Your task to perform on an android device: check storage Image 0: 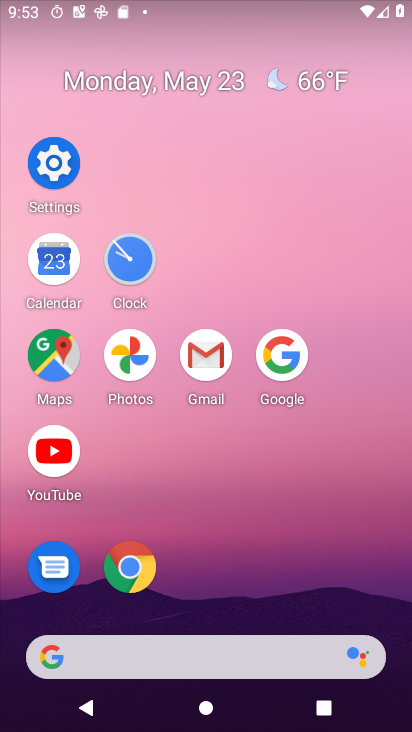
Step 0: click (59, 164)
Your task to perform on an android device: check storage Image 1: 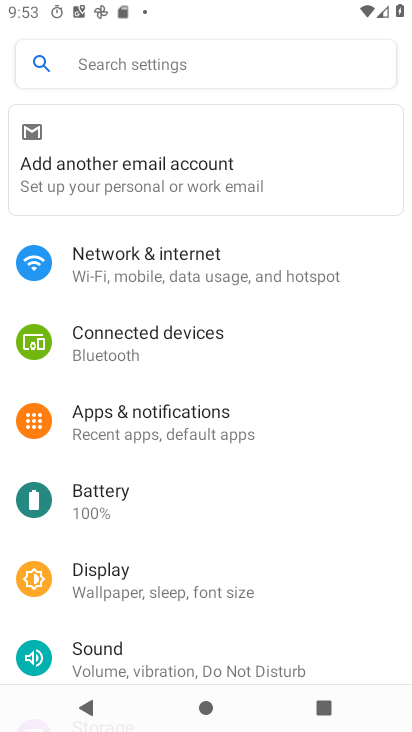
Step 1: drag from (172, 612) to (235, 313)
Your task to perform on an android device: check storage Image 2: 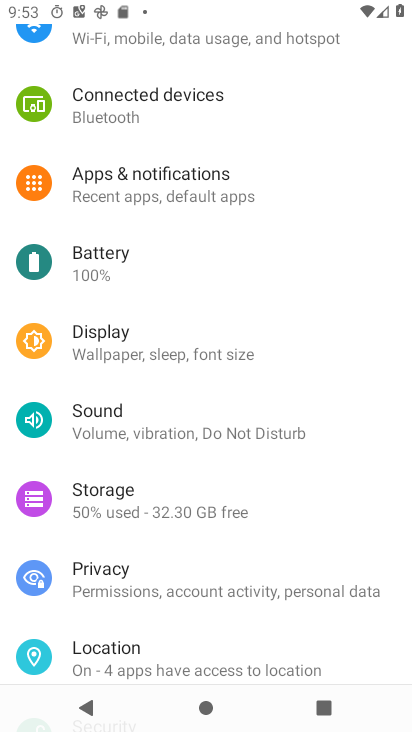
Step 2: click (195, 522)
Your task to perform on an android device: check storage Image 3: 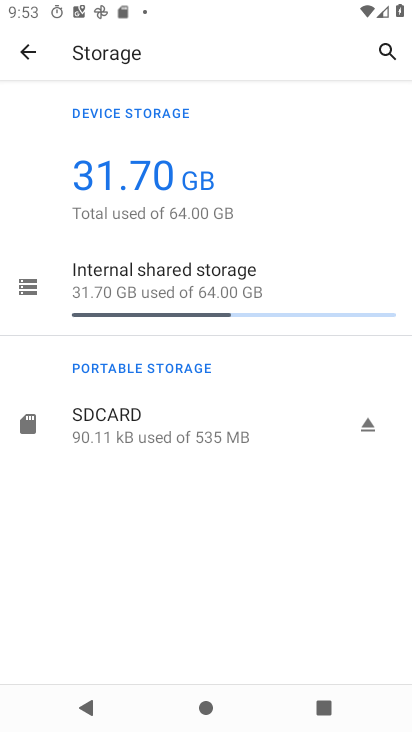
Step 3: task complete